Your task to perform on an android device: check storage Image 0: 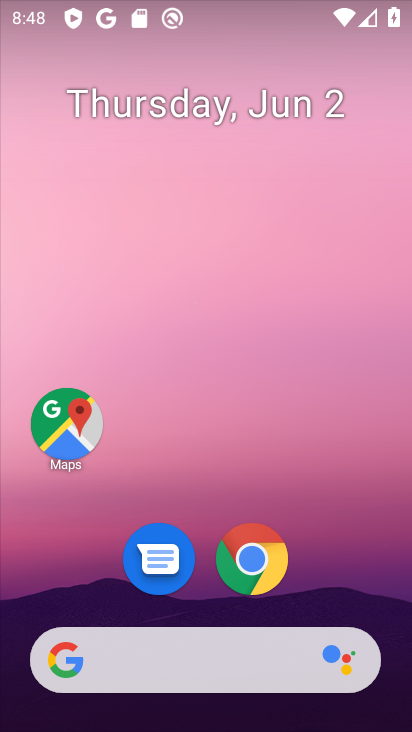
Step 0: drag from (127, 728) to (150, 174)
Your task to perform on an android device: check storage Image 1: 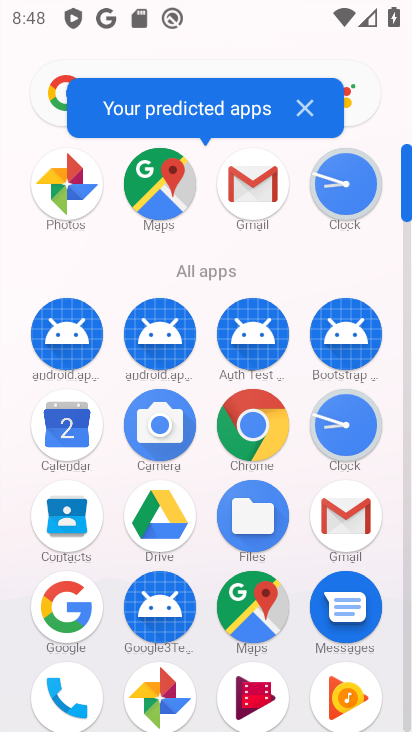
Step 1: drag from (114, 502) to (120, 187)
Your task to perform on an android device: check storage Image 2: 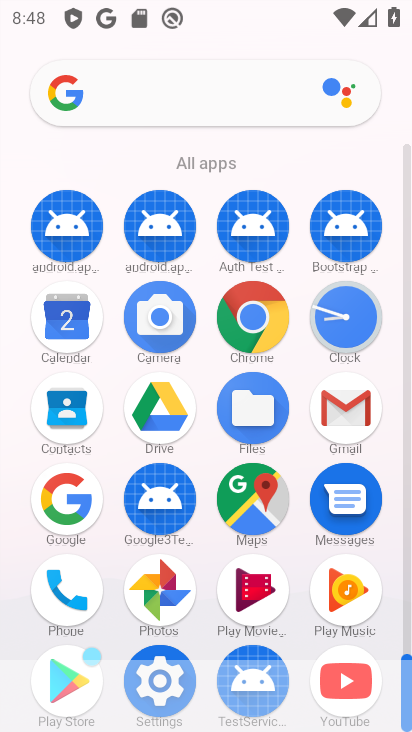
Step 2: click (160, 659)
Your task to perform on an android device: check storage Image 3: 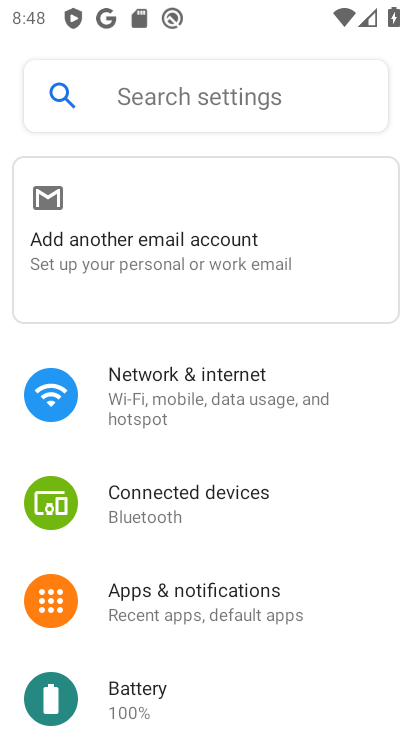
Step 3: drag from (157, 559) to (203, 237)
Your task to perform on an android device: check storage Image 4: 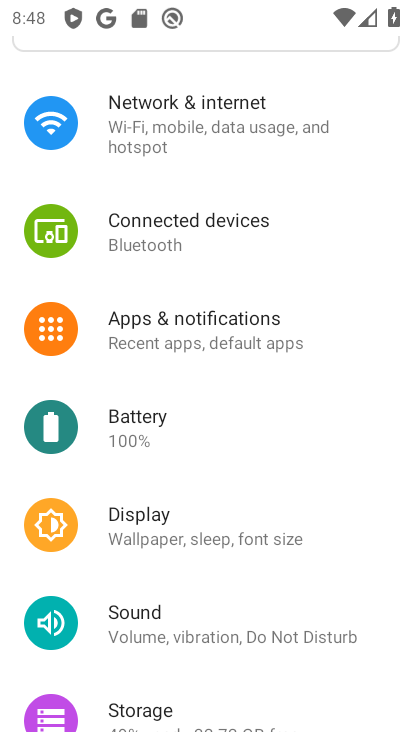
Step 4: click (127, 721)
Your task to perform on an android device: check storage Image 5: 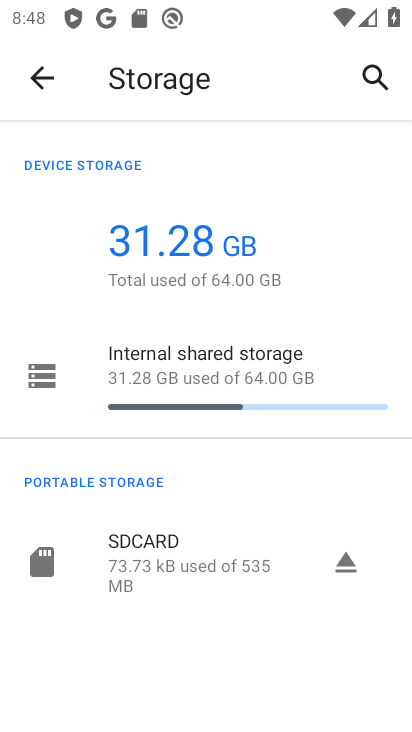
Step 5: task complete